Your task to perform on an android device: open a bookmark in the chrome app Image 0: 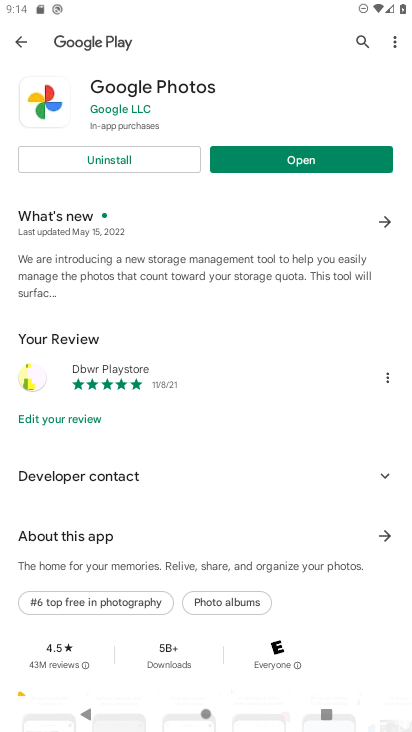
Step 0: press home button
Your task to perform on an android device: open a bookmark in the chrome app Image 1: 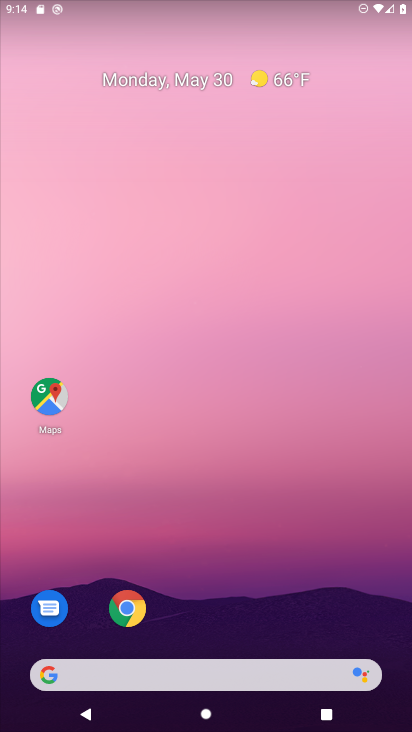
Step 1: click (121, 601)
Your task to perform on an android device: open a bookmark in the chrome app Image 2: 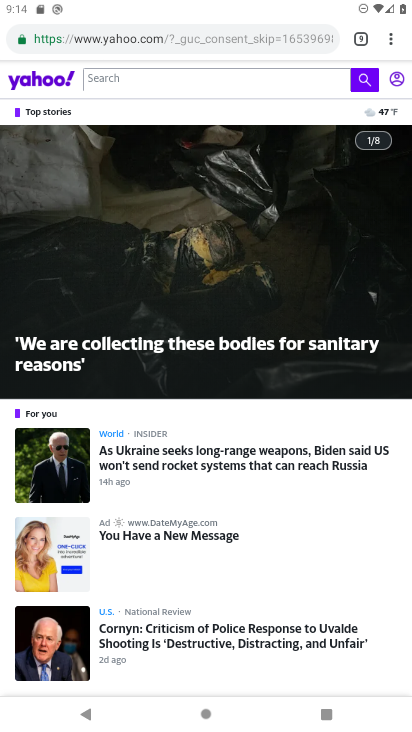
Step 2: click (390, 39)
Your task to perform on an android device: open a bookmark in the chrome app Image 3: 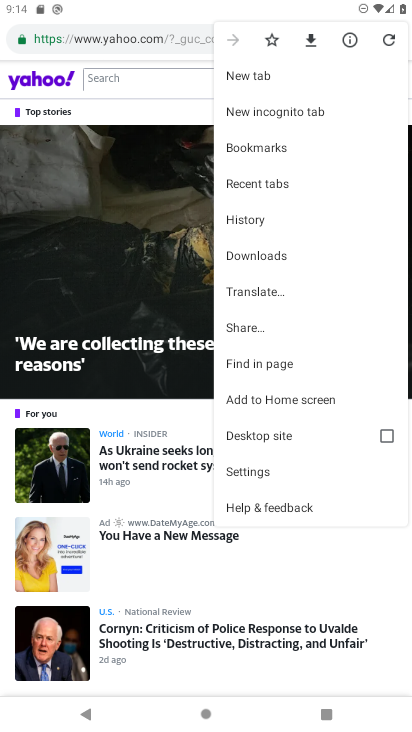
Step 3: click (257, 140)
Your task to perform on an android device: open a bookmark in the chrome app Image 4: 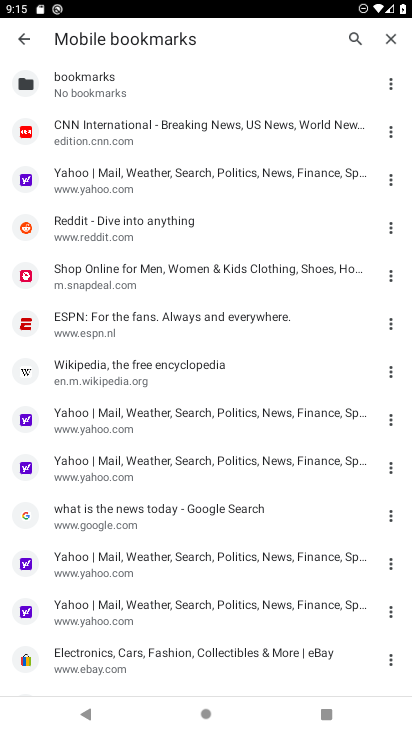
Step 4: click (149, 171)
Your task to perform on an android device: open a bookmark in the chrome app Image 5: 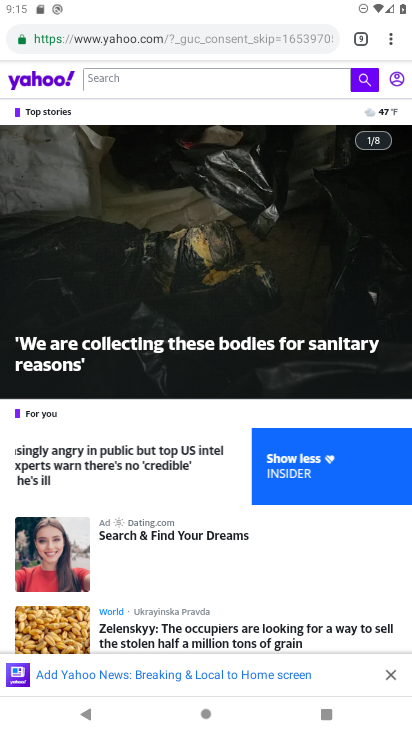
Step 5: task complete